Your task to perform on an android device: Search for seafood restaurants on Google Maps Image 0: 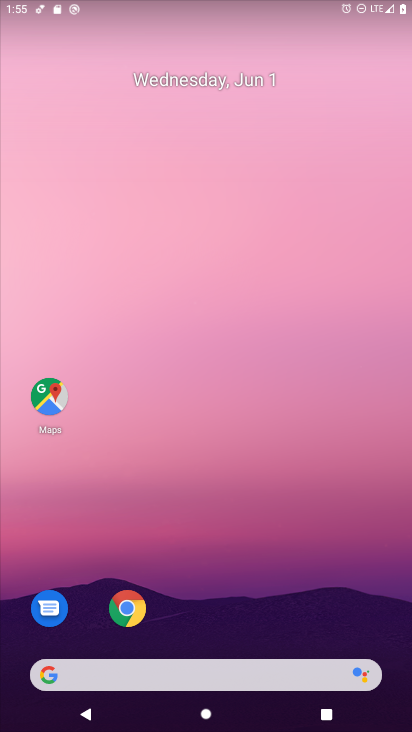
Step 0: drag from (206, 357) to (195, 74)
Your task to perform on an android device: Search for seafood restaurants on Google Maps Image 1: 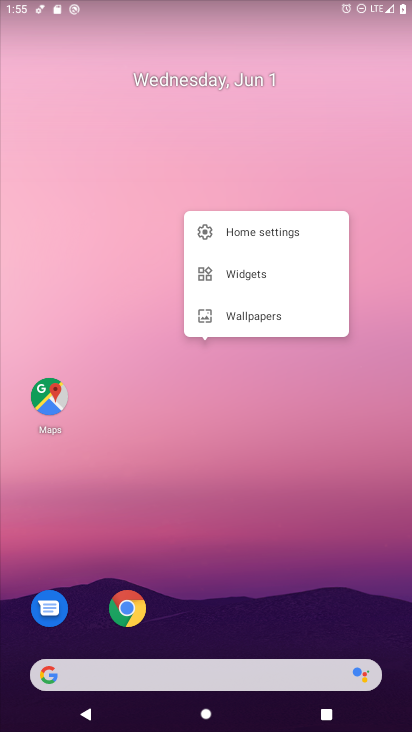
Step 1: click (46, 389)
Your task to perform on an android device: Search for seafood restaurants on Google Maps Image 2: 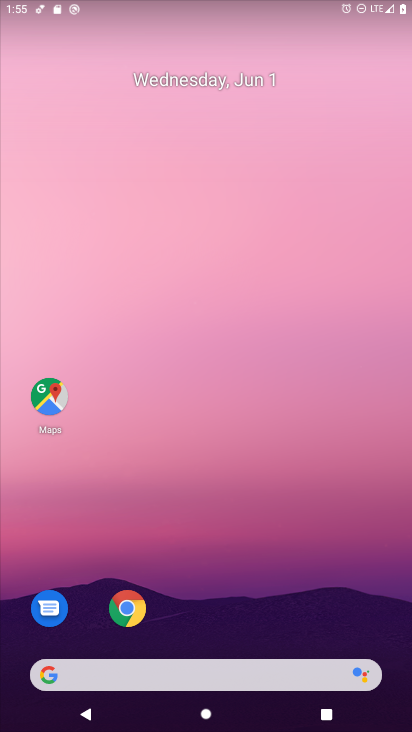
Step 2: click (43, 399)
Your task to perform on an android device: Search for seafood restaurants on Google Maps Image 3: 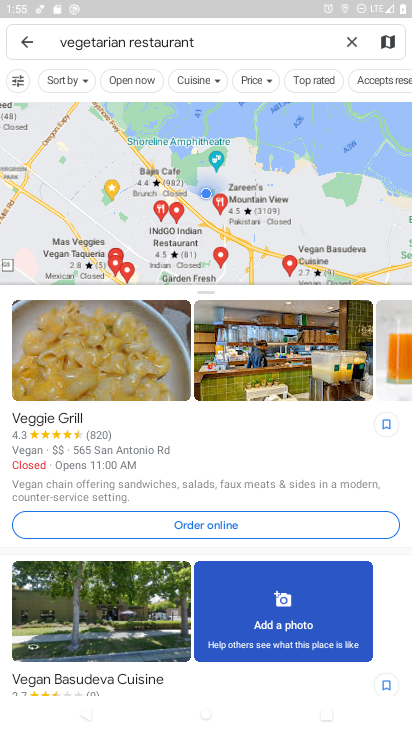
Step 3: click (350, 41)
Your task to perform on an android device: Search for seafood restaurants on Google Maps Image 4: 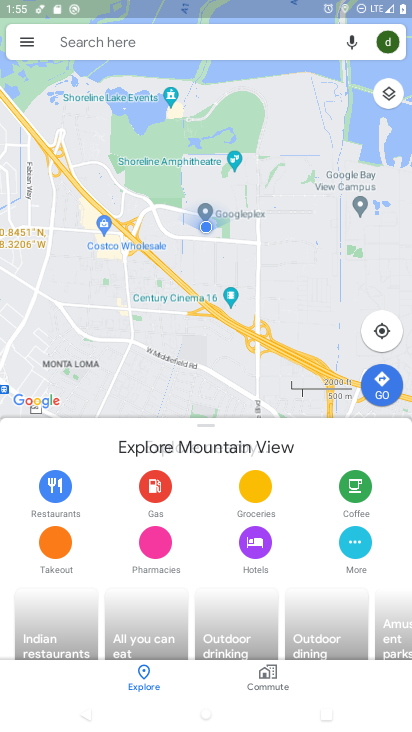
Step 4: click (167, 38)
Your task to perform on an android device: Search for seafood restaurants on Google Maps Image 5: 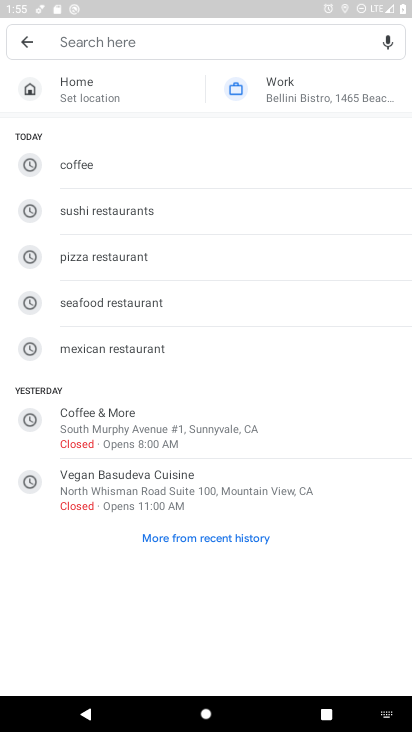
Step 5: click (119, 304)
Your task to perform on an android device: Search for seafood restaurants on Google Maps Image 6: 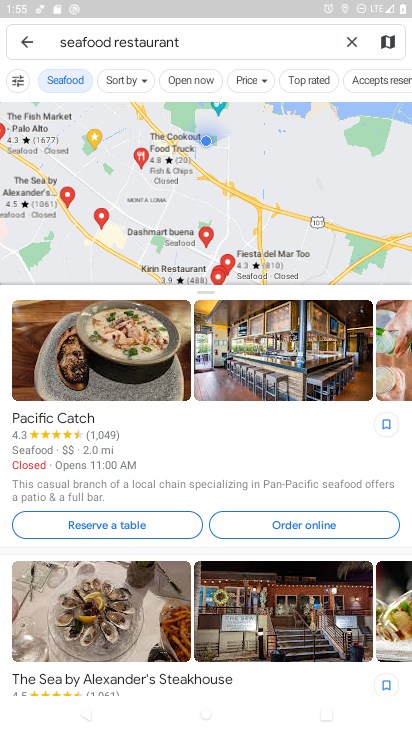
Step 6: task complete